Your task to perform on an android device: When is my next meeting? Image 0: 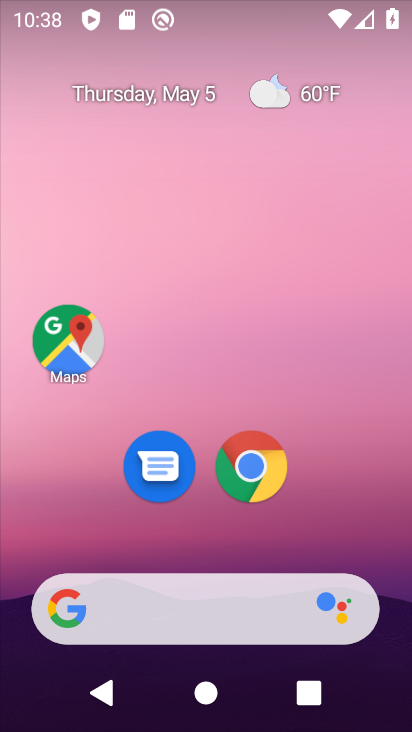
Step 0: drag from (146, 561) to (255, 128)
Your task to perform on an android device: When is my next meeting? Image 1: 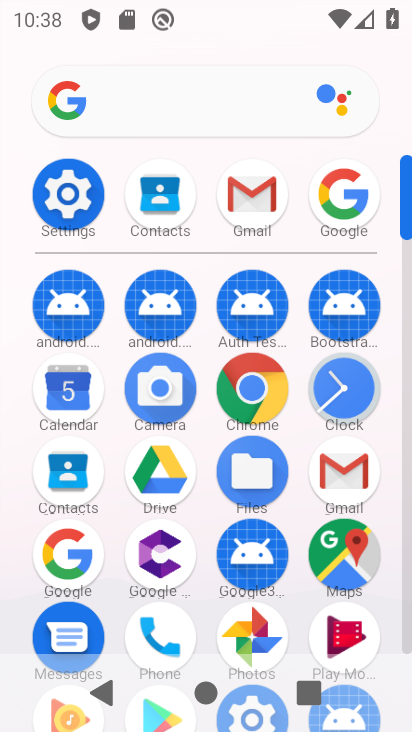
Step 1: click (68, 399)
Your task to perform on an android device: When is my next meeting? Image 2: 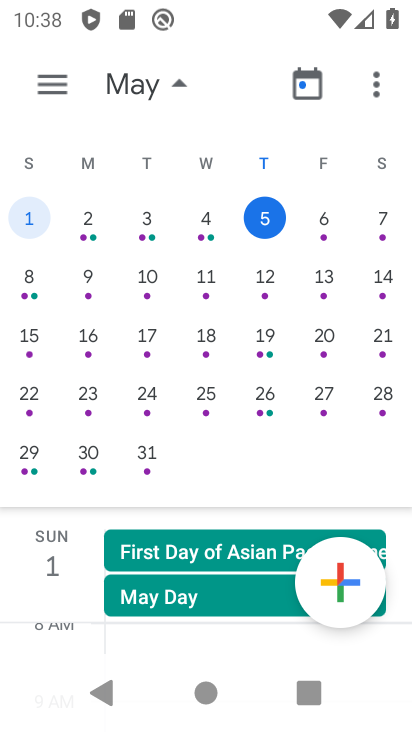
Step 2: click (69, 94)
Your task to perform on an android device: When is my next meeting? Image 3: 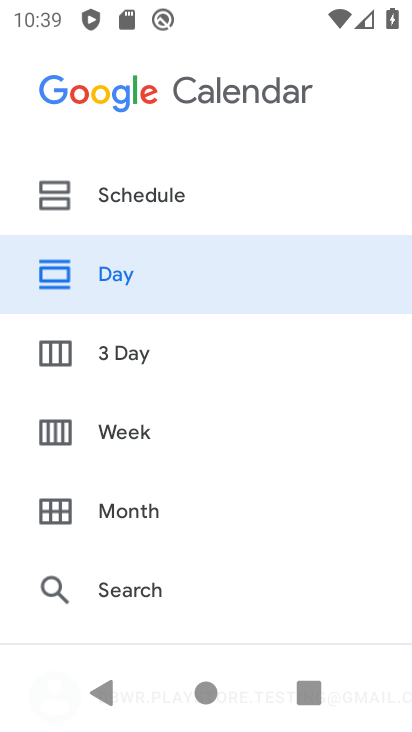
Step 3: click (136, 205)
Your task to perform on an android device: When is my next meeting? Image 4: 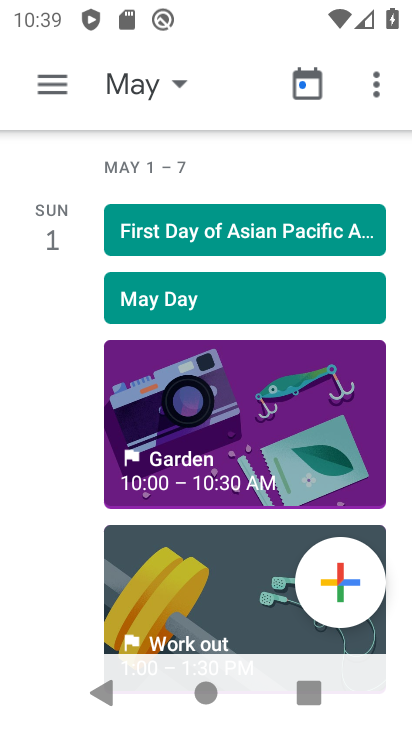
Step 4: task complete